Your task to perform on an android device: When is my next meeting? Image 0: 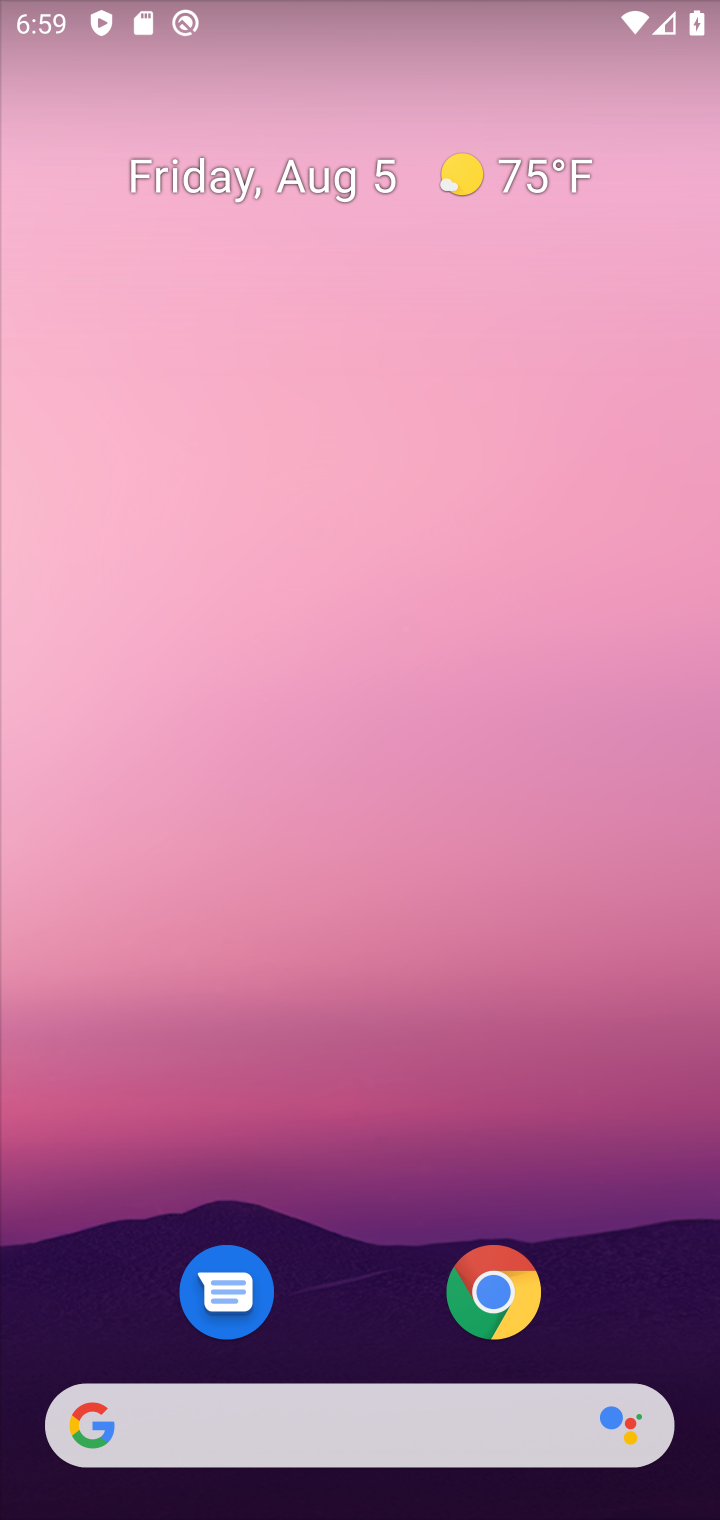
Step 0: drag from (382, 1187) to (421, 0)
Your task to perform on an android device: When is my next meeting? Image 1: 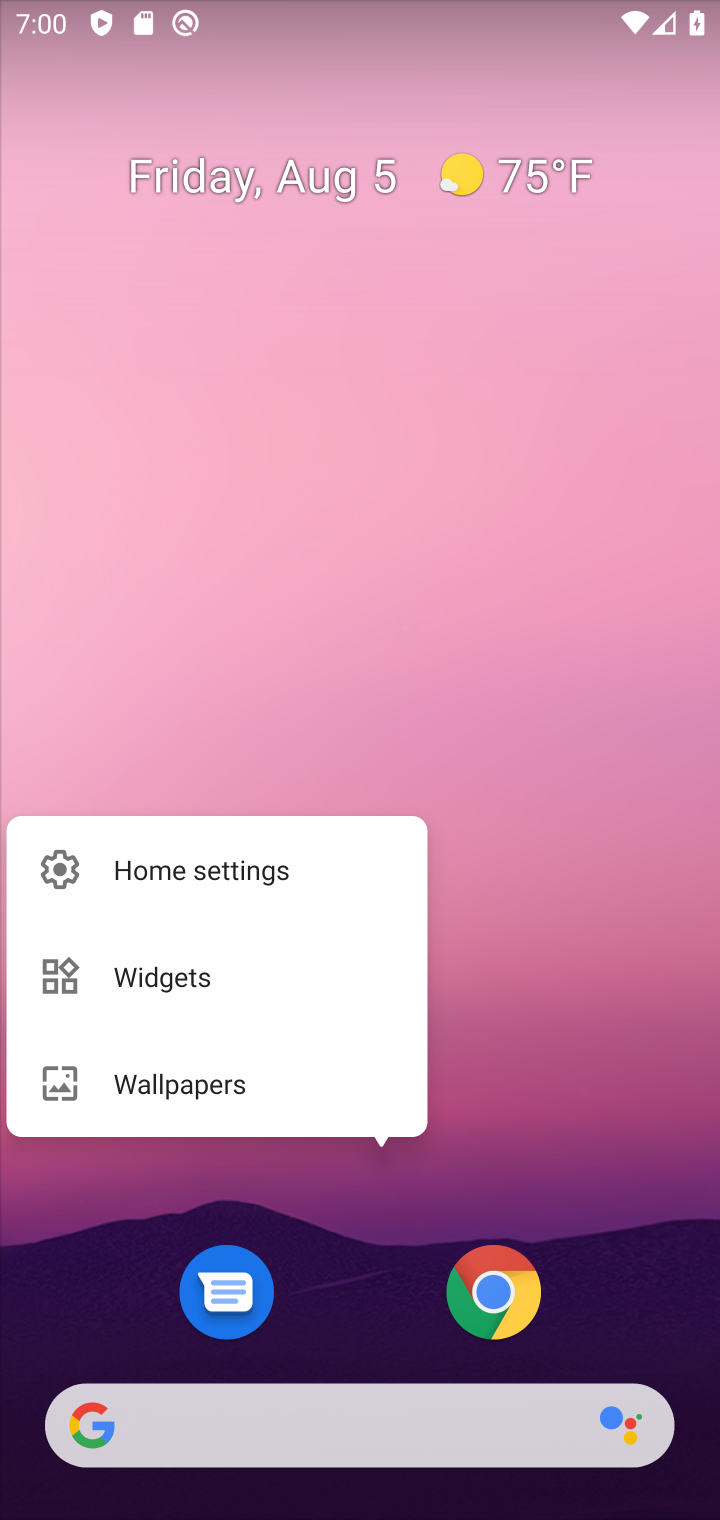
Step 1: click (442, 483)
Your task to perform on an android device: When is my next meeting? Image 2: 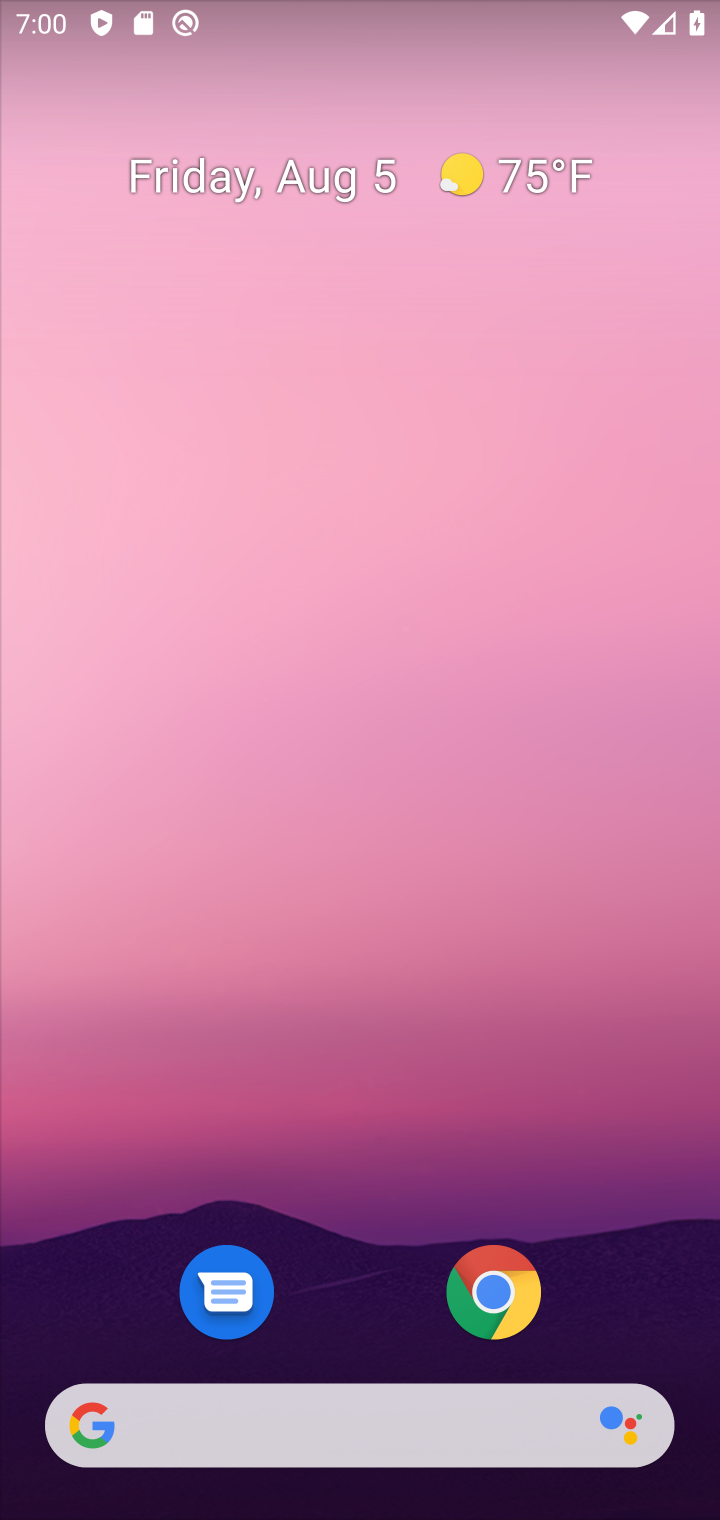
Step 2: drag from (353, 1286) to (373, 27)
Your task to perform on an android device: When is my next meeting? Image 3: 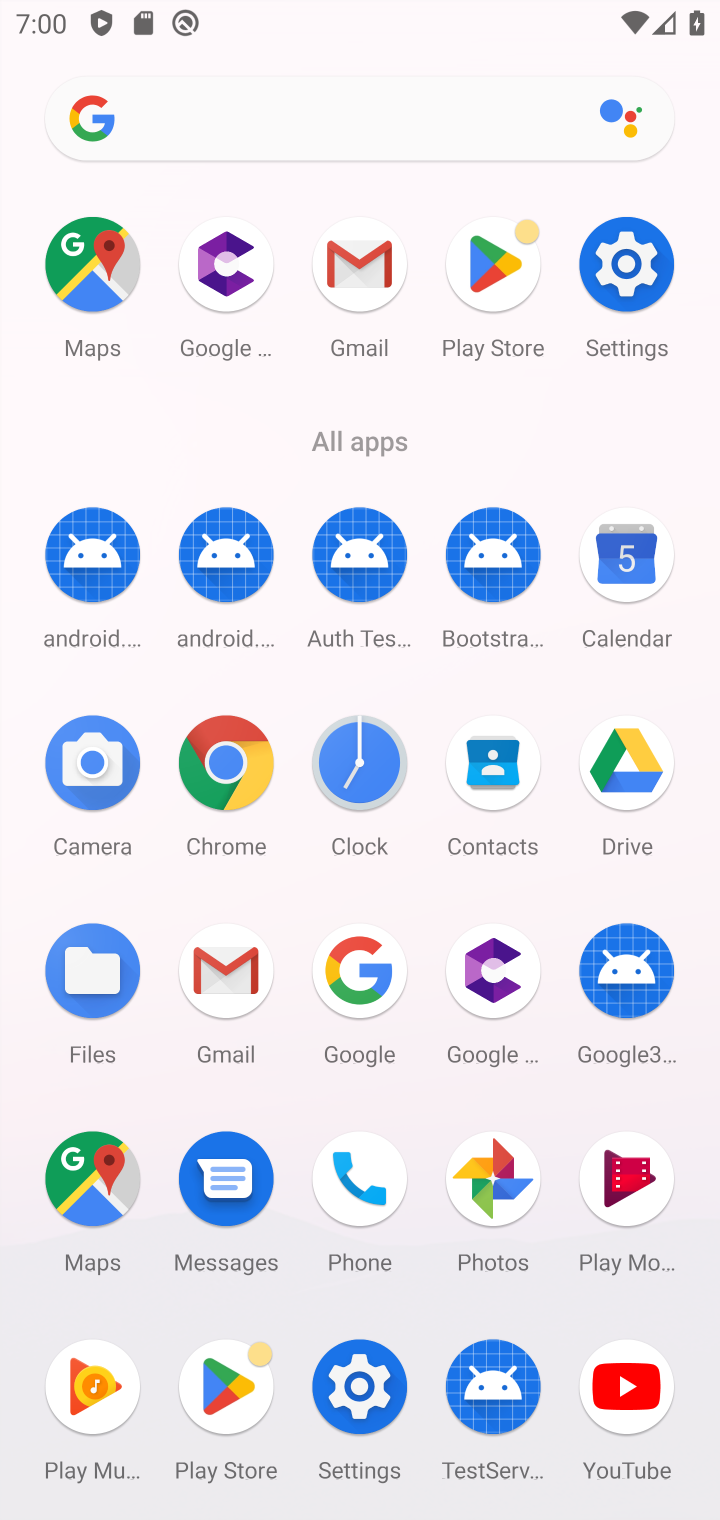
Step 3: click (630, 559)
Your task to perform on an android device: When is my next meeting? Image 4: 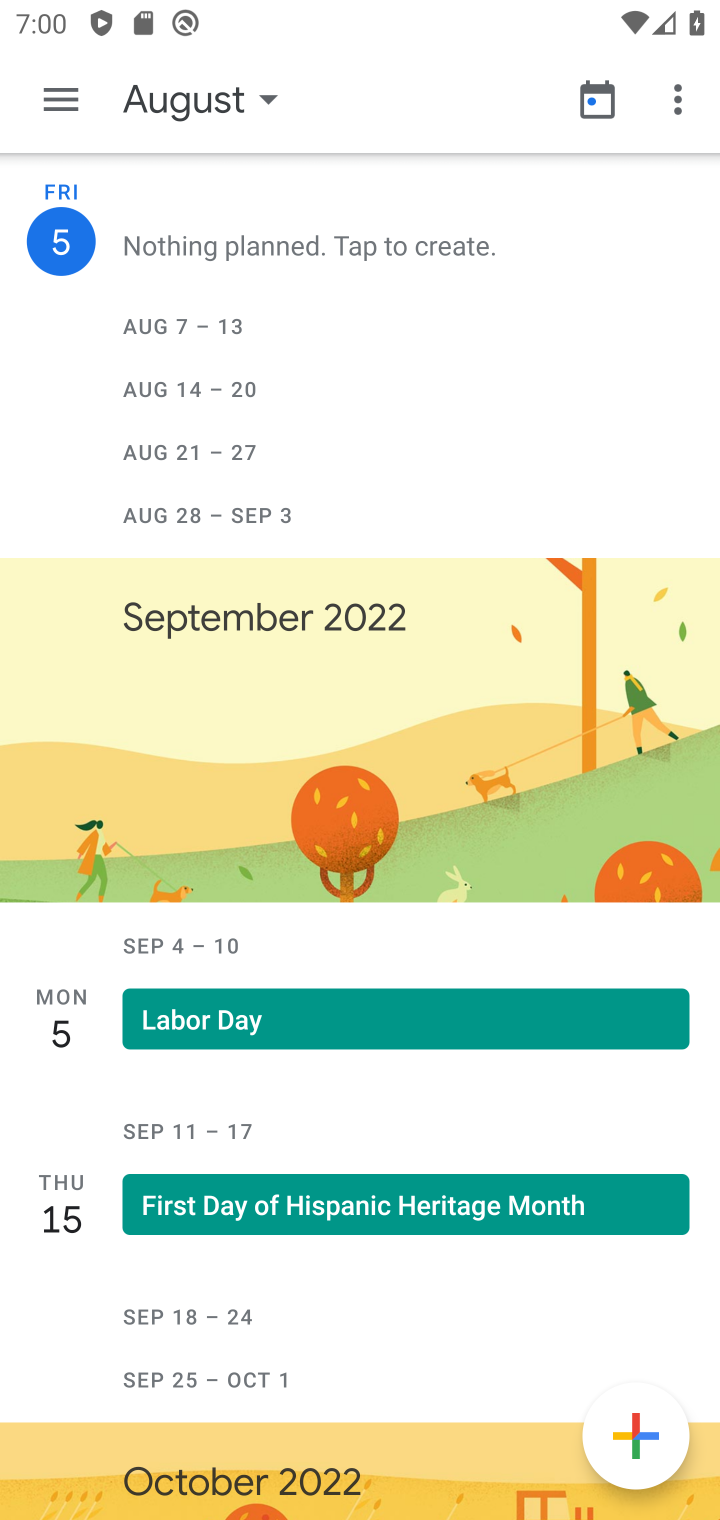
Step 4: task complete